Your task to perform on an android device: What's the latest tech news? Image 0: 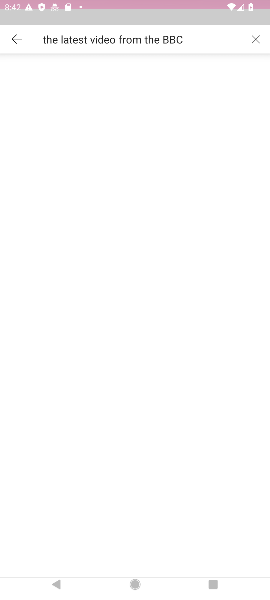
Step 0: click (112, 329)
Your task to perform on an android device: What's the latest tech news? Image 1: 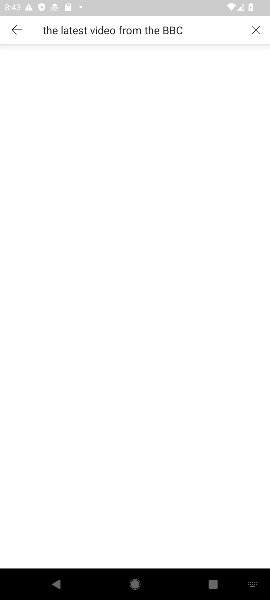
Step 1: press home button
Your task to perform on an android device: What's the latest tech news? Image 2: 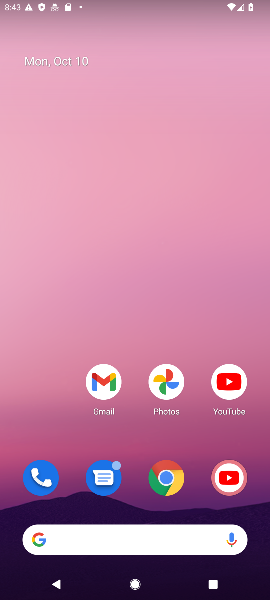
Step 2: click (162, 472)
Your task to perform on an android device: What's the latest tech news? Image 3: 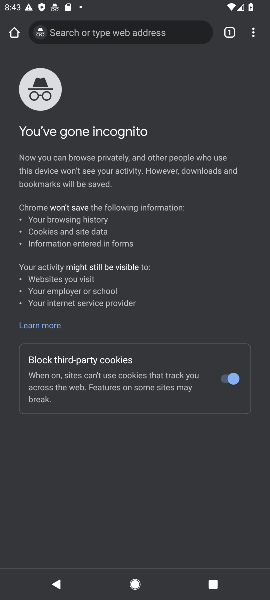
Step 3: click (150, 31)
Your task to perform on an android device: What's the latest tech news? Image 4: 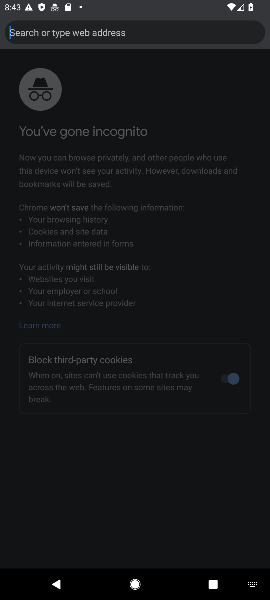
Step 4: type "What's the latest tech news?"
Your task to perform on an android device: What's the latest tech news? Image 5: 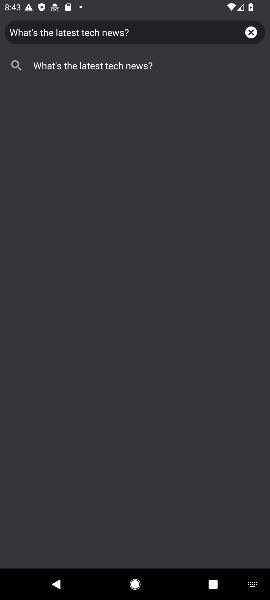
Step 5: click (166, 34)
Your task to perform on an android device: What's the latest tech news? Image 6: 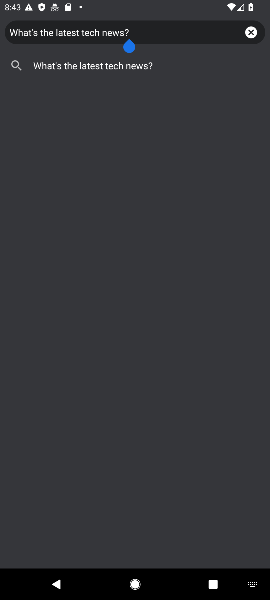
Step 6: click (144, 66)
Your task to perform on an android device: What's the latest tech news? Image 7: 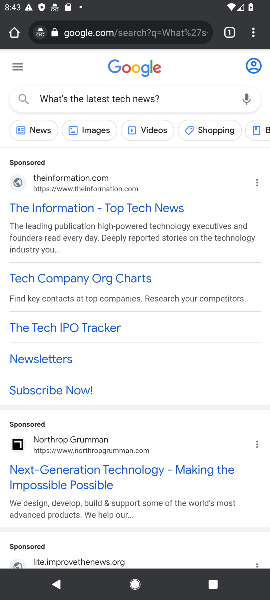
Step 7: click (189, 209)
Your task to perform on an android device: What's the latest tech news? Image 8: 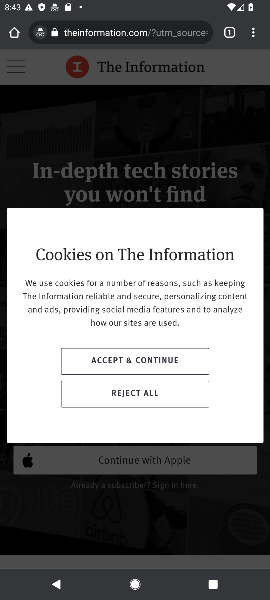
Step 8: click (162, 360)
Your task to perform on an android device: What's the latest tech news? Image 9: 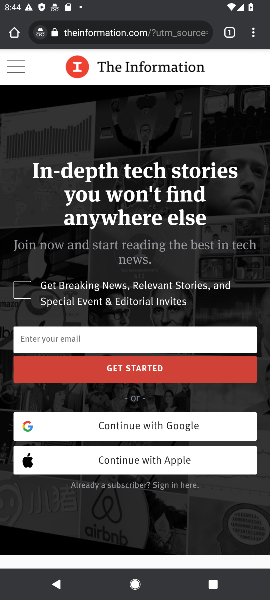
Step 9: task complete